Your task to perform on an android device: Go to notification settings Image 0: 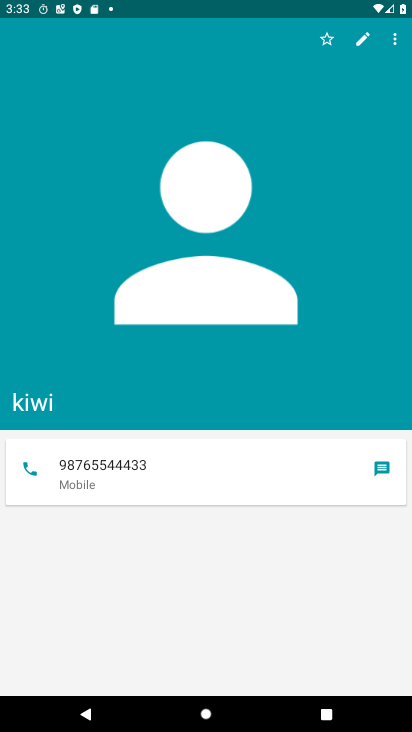
Step 0: press home button
Your task to perform on an android device: Go to notification settings Image 1: 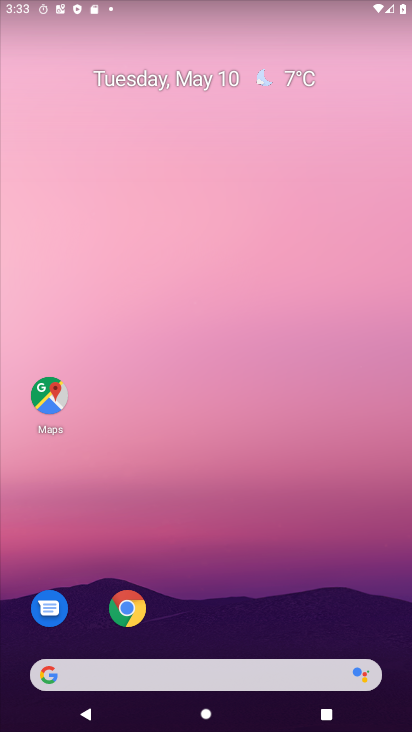
Step 1: drag from (268, 632) to (267, 5)
Your task to perform on an android device: Go to notification settings Image 2: 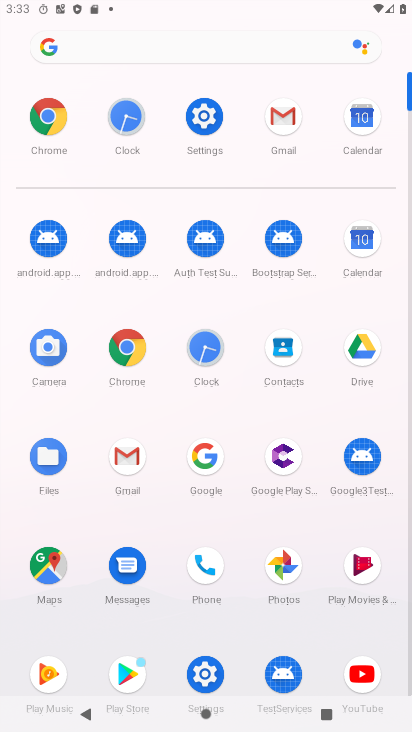
Step 2: click (213, 116)
Your task to perform on an android device: Go to notification settings Image 3: 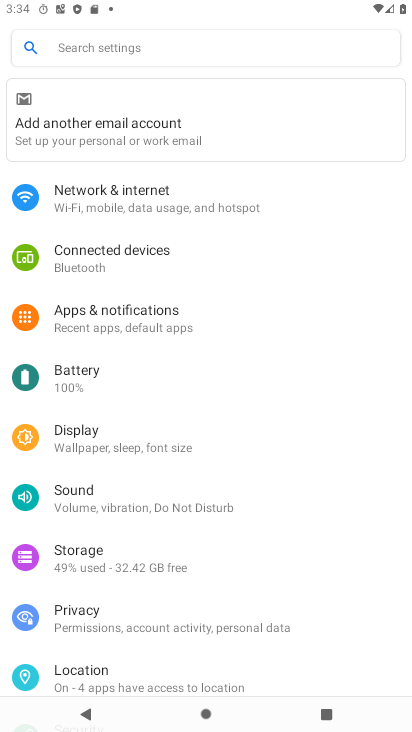
Step 3: click (114, 313)
Your task to perform on an android device: Go to notification settings Image 4: 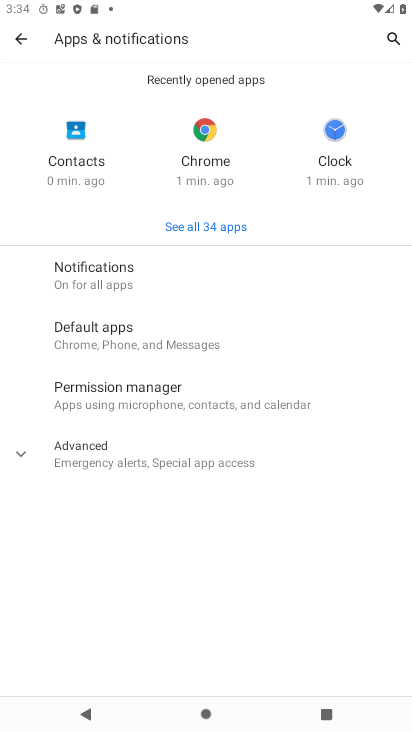
Step 4: task complete